Your task to perform on an android device: Go to location settings Image 0: 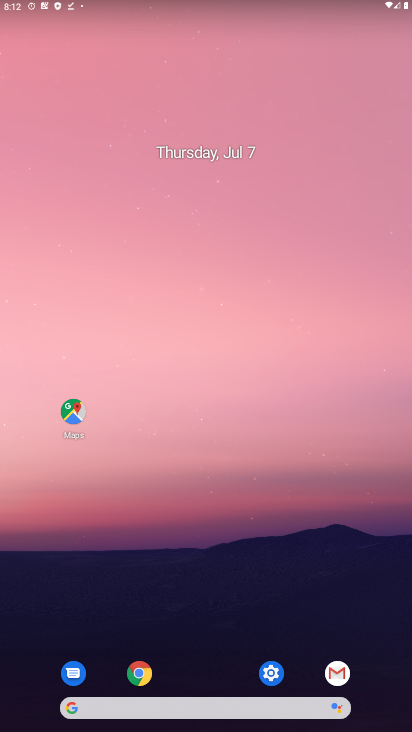
Step 0: click (268, 664)
Your task to perform on an android device: Go to location settings Image 1: 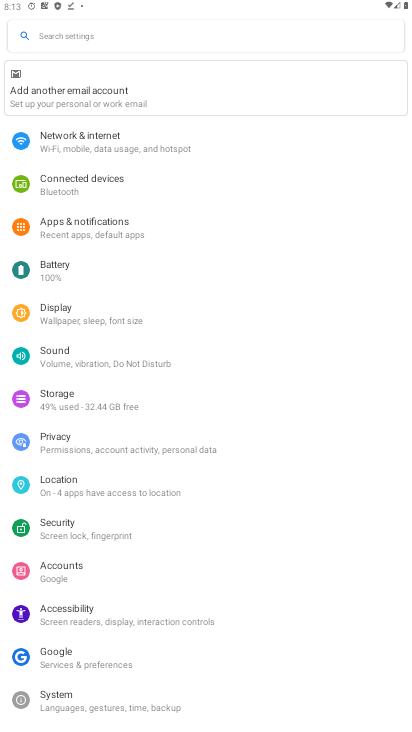
Step 1: click (112, 34)
Your task to perform on an android device: Go to location settings Image 2: 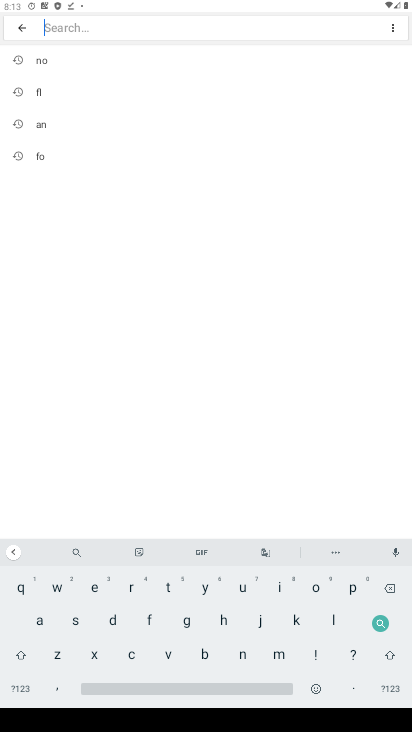
Step 2: click (337, 620)
Your task to perform on an android device: Go to location settings Image 3: 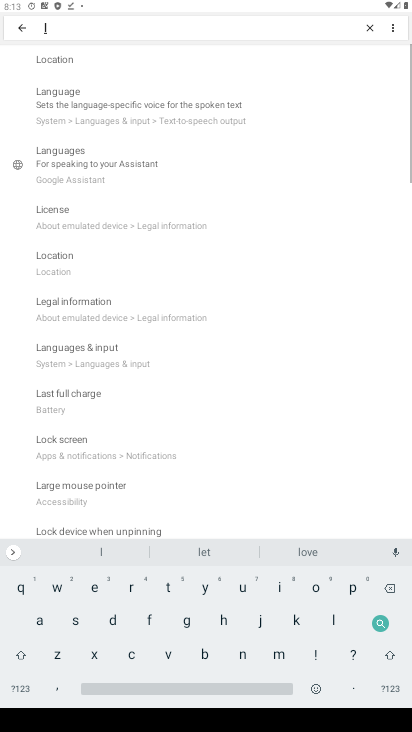
Step 3: click (315, 590)
Your task to perform on an android device: Go to location settings Image 4: 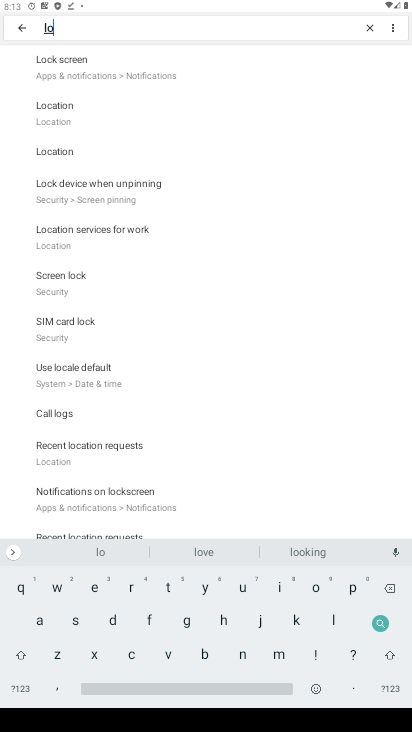
Step 4: click (70, 107)
Your task to perform on an android device: Go to location settings Image 5: 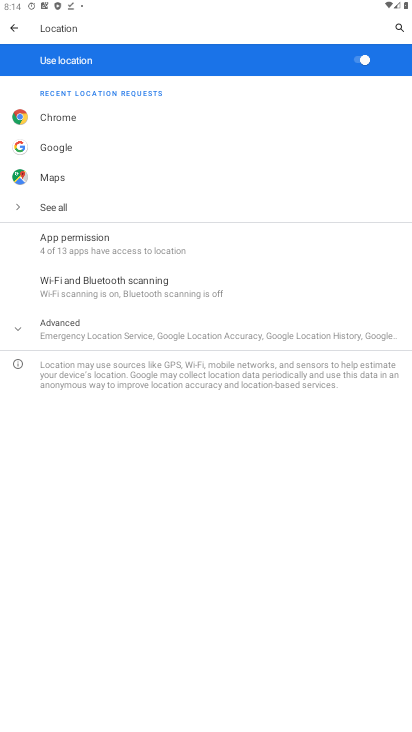
Step 5: task complete